Your task to perform on an android device: toggle wifi Image 0: 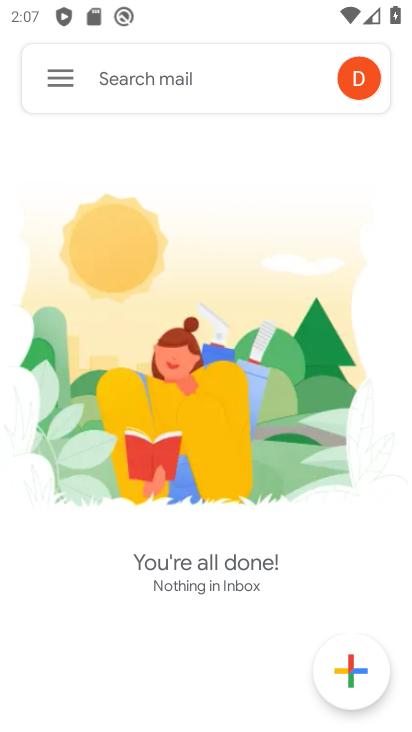
Step 0: press home button
Your task to perform on an android device: toggle wifi Image 1: 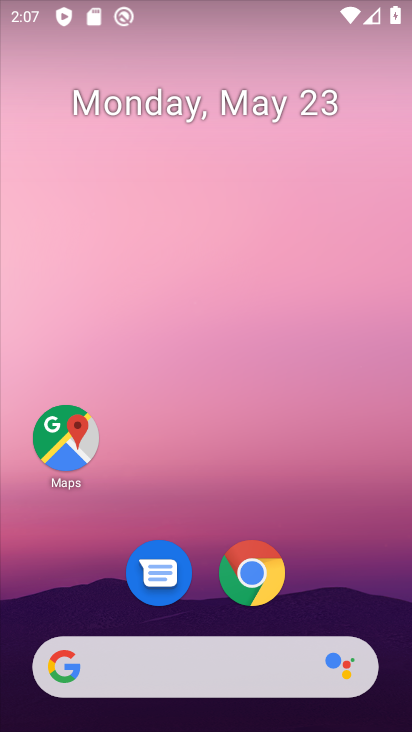
Step 1: drag from (317, 597) to (346, 153)
Your task to perform on an android device: toggle wifi Image 2: 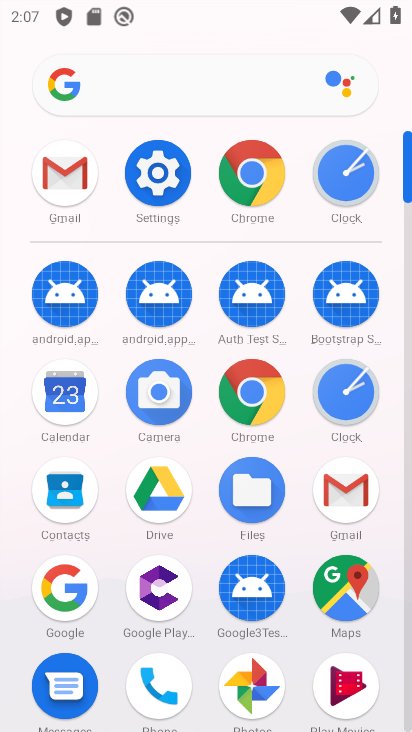
Step 2: click (157, 176)
Your task to perform on an android device: toggle wifi Image 3: 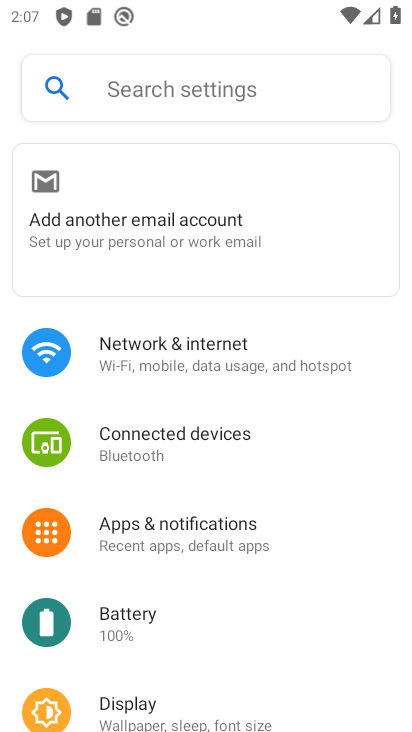
Step 3: click (135, 367)
Your task to perform on an android device: toggle wifi Image 4: 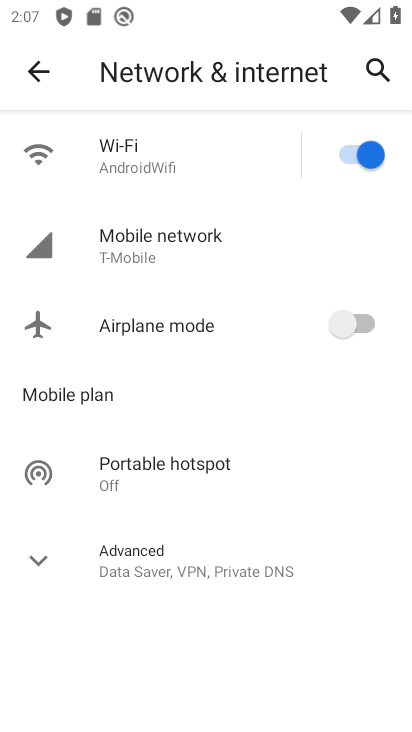
Step 4: click (208, 155)
Your task to perform on an android device: toggle wifi Image 5: 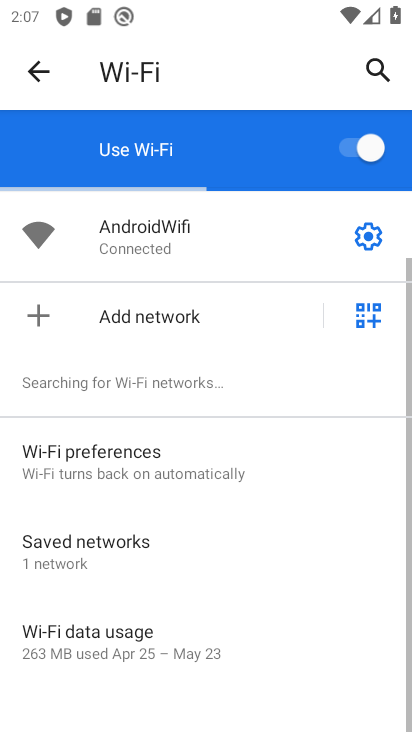
Step 5: click (351, 139)
Your task to perform on an android device: toggle wifi Image 6: 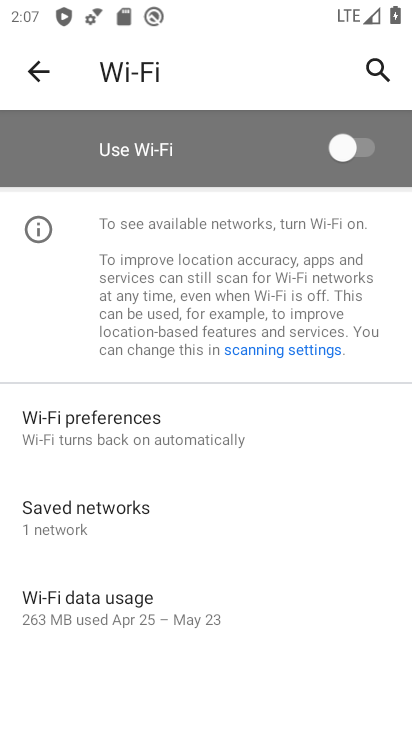
Step 6: task complete